Your task to perform on an android device: Go to notification settings Image 0: 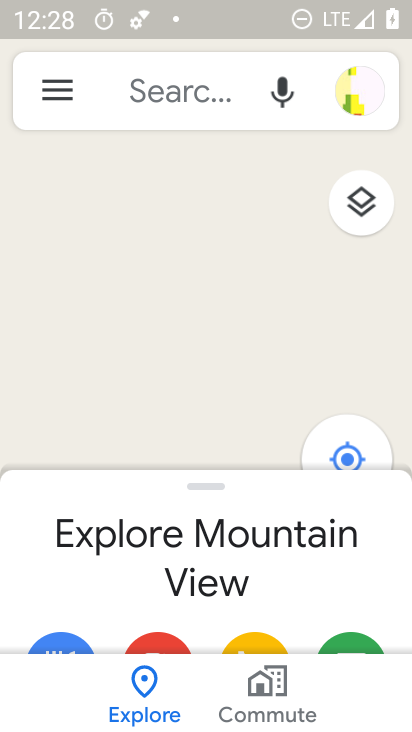
Step 0: press home button
Your task to perform on an android device: Go to notification settings Image 1: 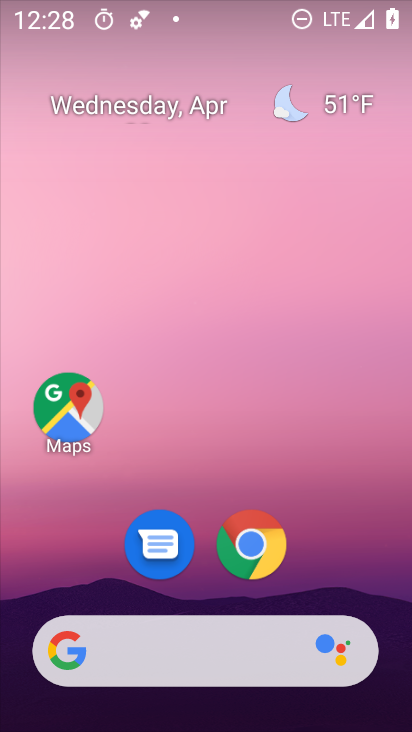
Step 1: drag from (351, 545) to (356, 203)
Your task to perform on an android device: Go to notification settings Image 2: 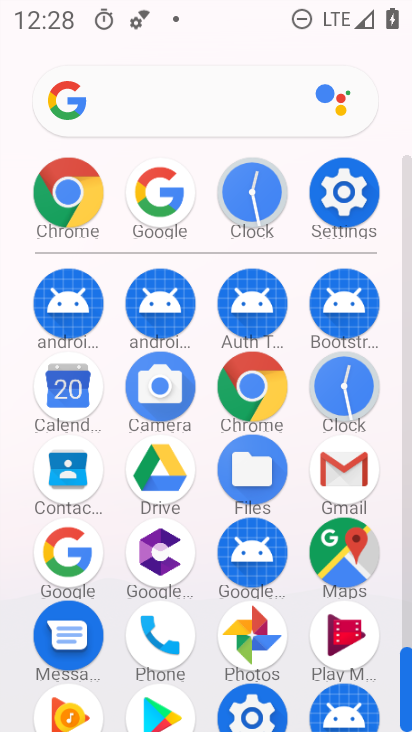
Step 2: click (357, 204)
Your task to perform on an android device: Go to notification settings Image 3: 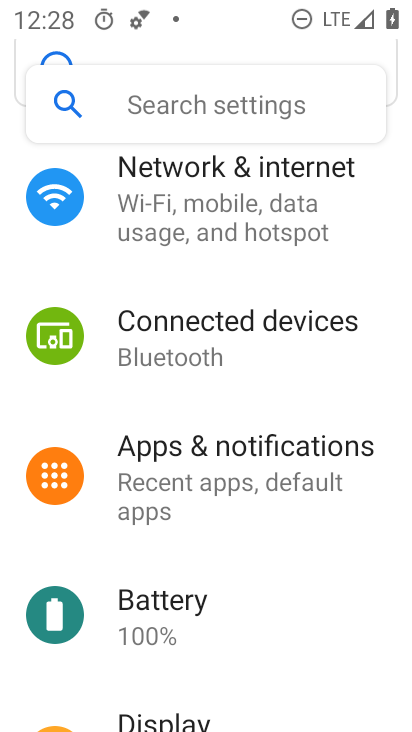
Step 3: drag from (363, 587) to (355, 419)
Your task to perform on an android device: Go to notification settings Image 4: 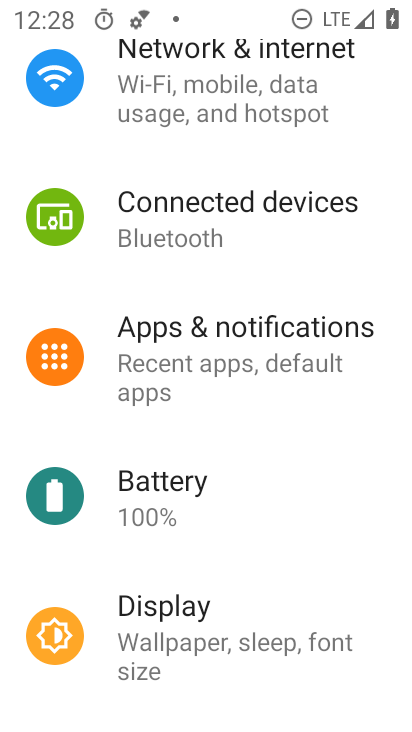
Step 4: drag from (353, 558) to (361, 440)
Your task to perform on an android device: Go to notification settings Image 5: 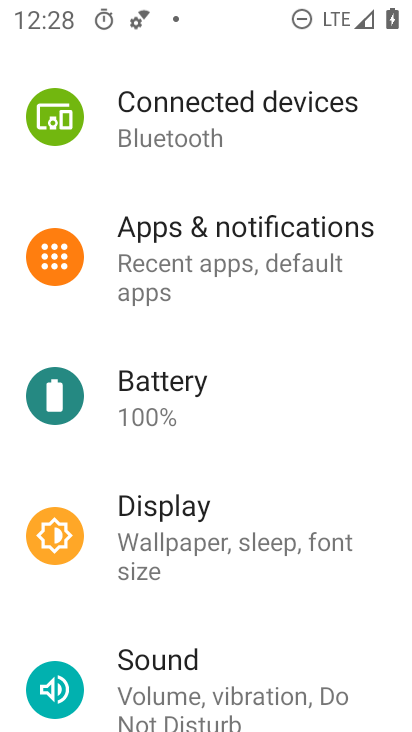
Step 5: drag from (353, 596) to (359, 438)
Your task to perform on an android device: Go to notification settings Image 6: 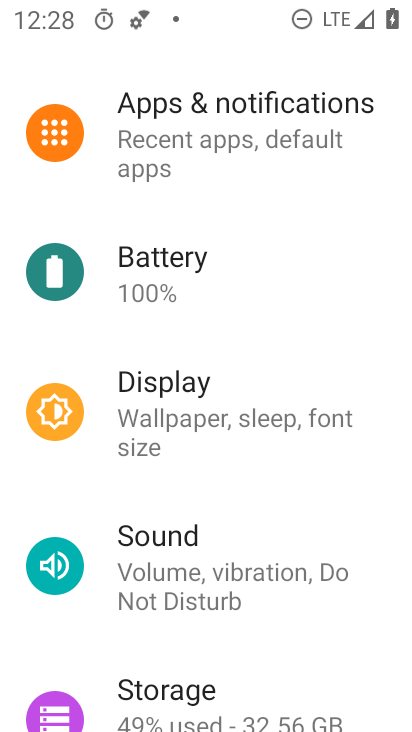
Step 6: drag from (365, 614) to (369, 430)
Your task to perform on an android device: Go to notification settings Image 7: 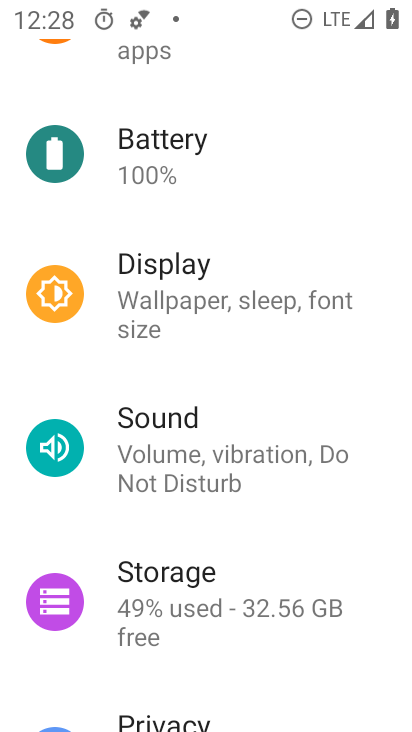
Step 7: drag from (369, 616) to (368, 461)
Your task to perform on an android device: Go to notification settings Image 8: 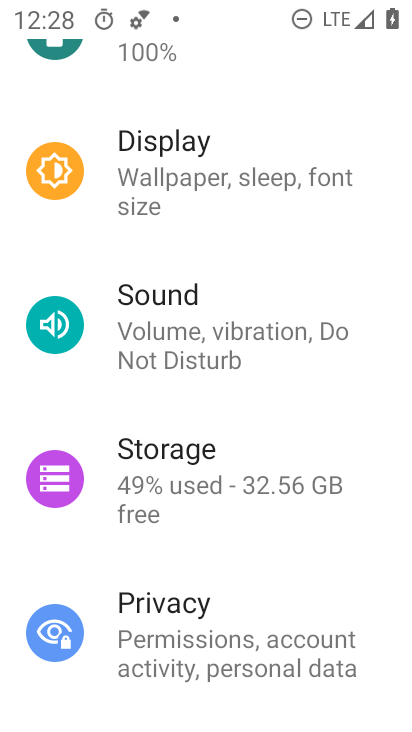
Step 8: drag from (370, 632) to (377, 454)
Your task to perform on an android device: Go to notification settings Image 9: 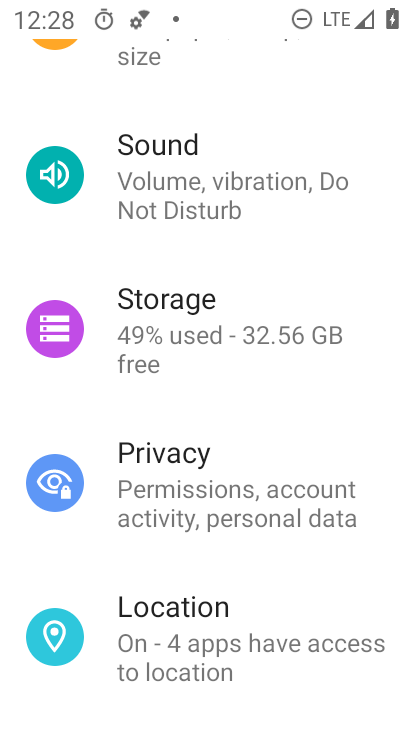
Step 9: drag from (368, 593) to (374, 429)
Your task to perform on an android device: Go to notification settings Image 10: 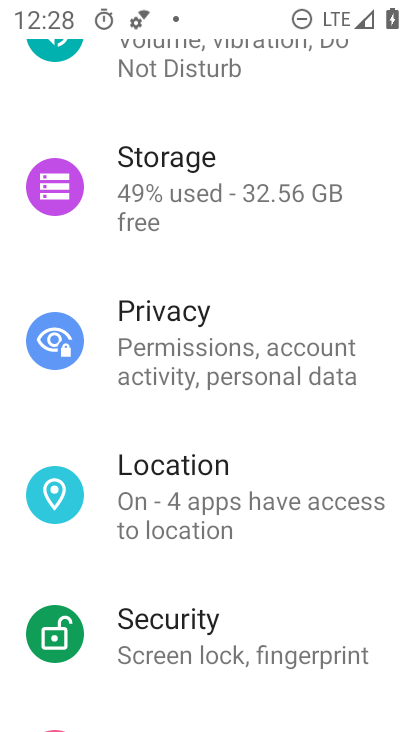
Step 10: drag from (386, 643) to (368, 458)
Your task to perform on an android device: Go to notification settings Image 11: 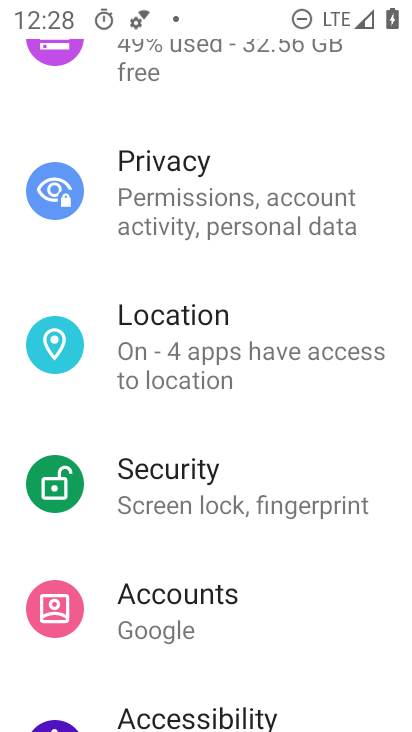
Step 11: drag from (363, 643) to (370, 448)
Your task to perform on an android device: Go to notification settings Image 12: 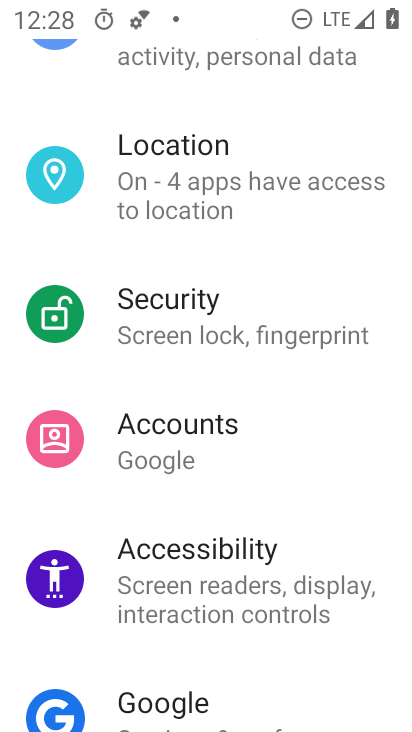
Step 12: drag from (362, 662) to (368, 446)
Your task to perform on an android device: Go to notification settings Image 13: 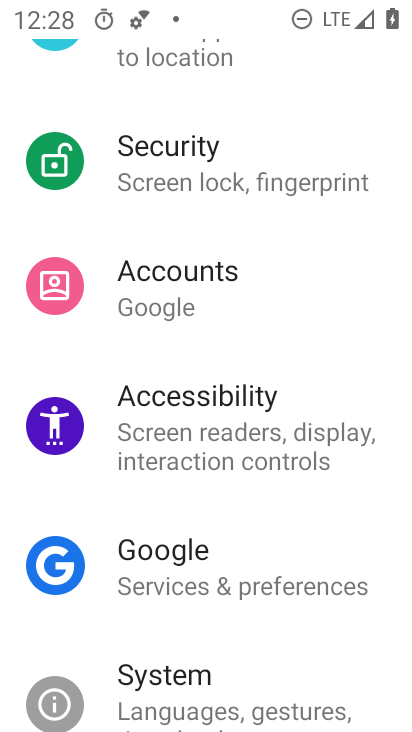
Step 13: drag from (382, 665) to (388, 481)
Your task to perform on an android device: Go to notification settings Image 14: 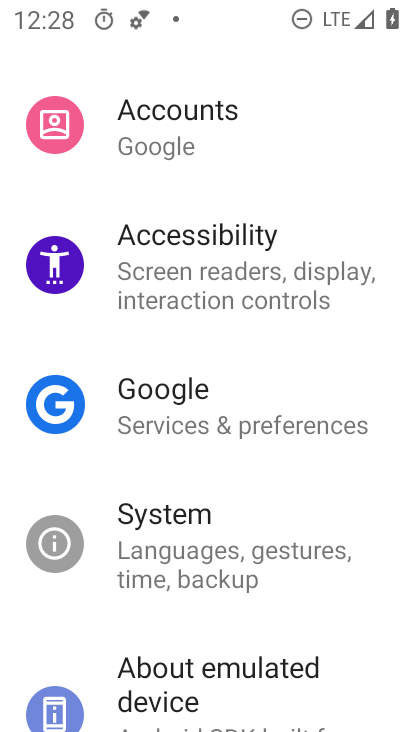
Step 14: drag from (371, 642) to (356, 461)
Your task to perform on an android device: Go to notification settings Image 15: 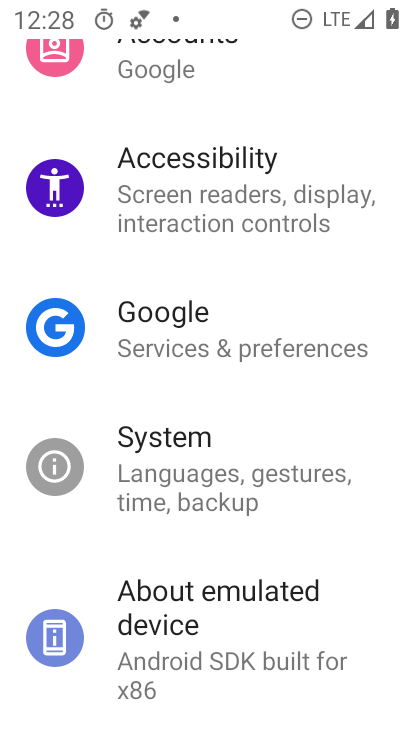
Step 15: drag from (362, 396) to (364, 541)
Your task to perform on an android device: Go to notification settings Image 16: 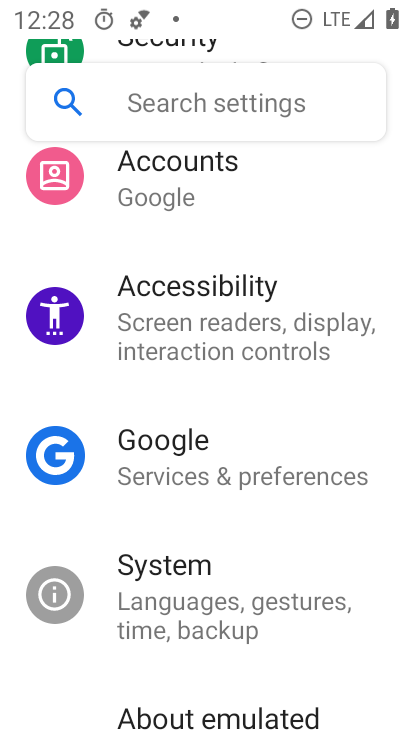
Step 16: drag from (373, 416) to (381, 573)
Your task to perform on an android device: Go to notification settings Image 17: 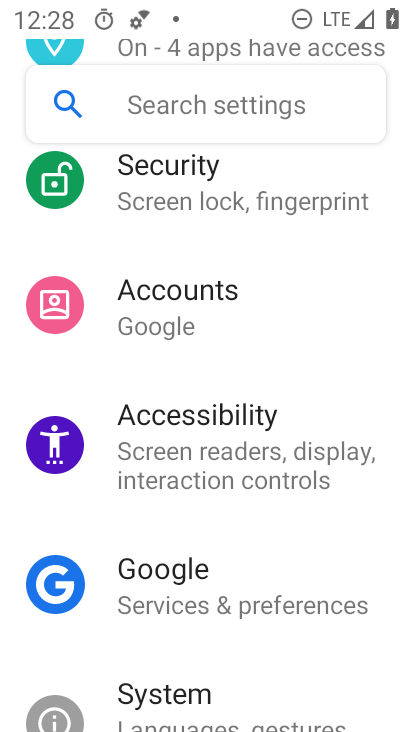
Step 17: drag from (374, 376) to (385, 523)
Your task to perform on an android device: Go to notification settings Image 18: 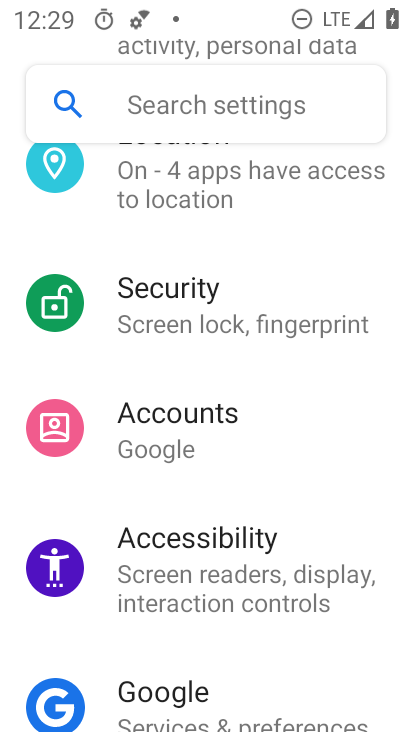
Step 18: drag from (379, 368) to (385, 503)
Your task to perform on an android device: Go to notification settings Image 19: 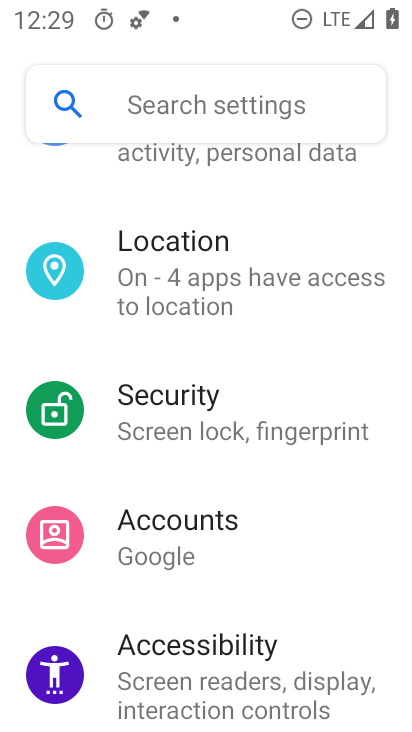
Step 19: drag from (382, 354) to (383, 505)
Your task to perform on an android device: Go to notification settings Image 20: 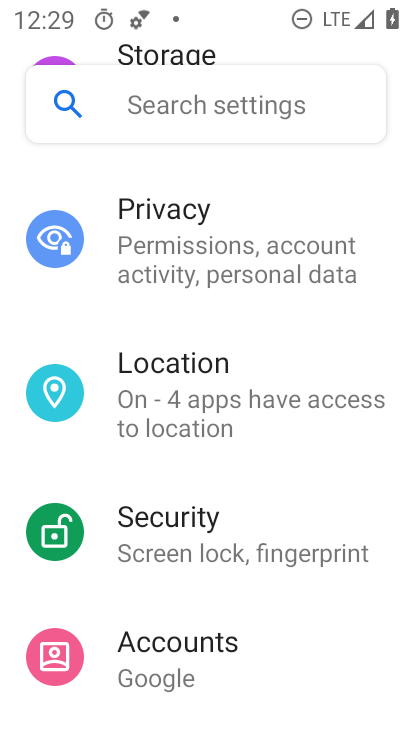
Step 20: drag from (380, 292) to (381, 490)
Your task to perform on an android device: Go to notification settings Image 21: 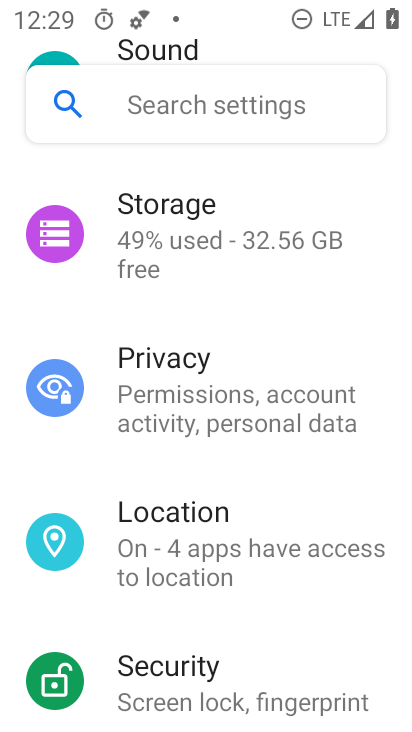
Step 21: drag from (368, 275) to (376, 437)
Your task to perform on an android device: Go to notification settings Image 22: 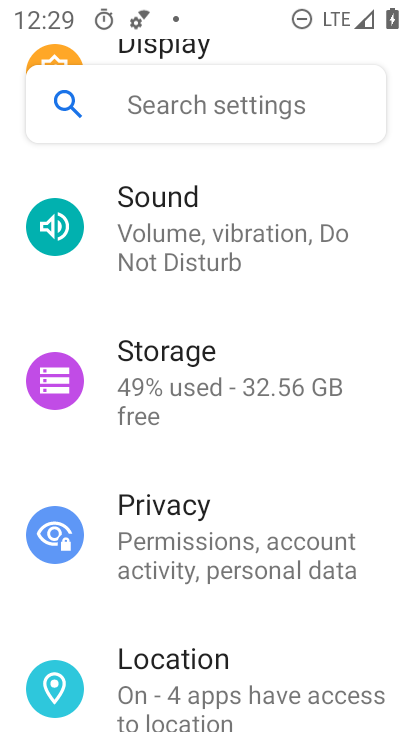
Step 22: drag from (366, 311) to (371, 450)
Your task to perform on an android device: Go to notification settings Image 23: 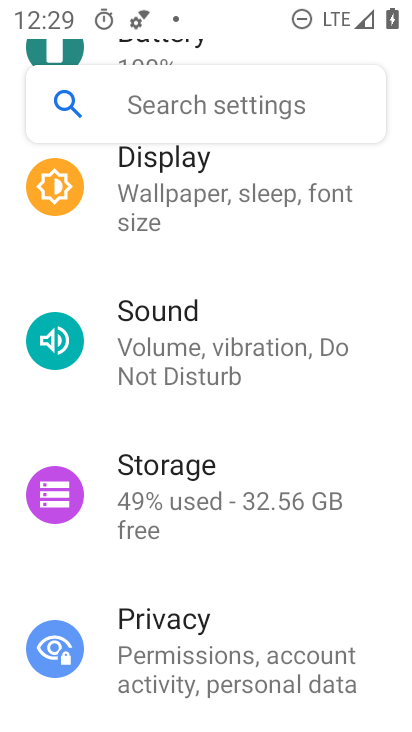
Step 23: drag from (370, 309) to (373, 467)
Your task to perform on an android device: Go to notification settings Image 24: 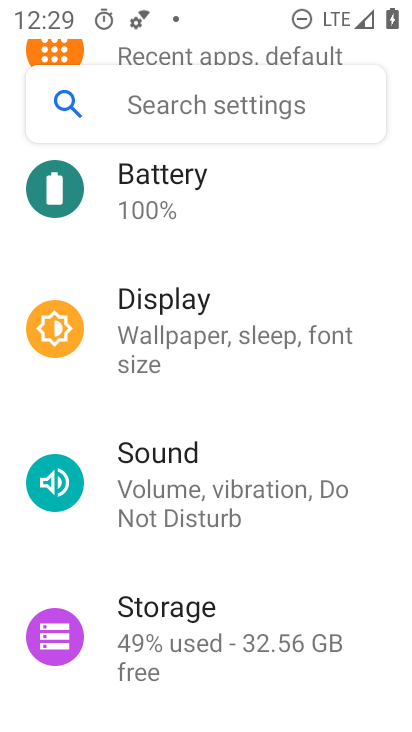
Step 24: drag from (374, 248) to (370, 445)
Your task to perform on an android device: Go to notification settings Image 25: 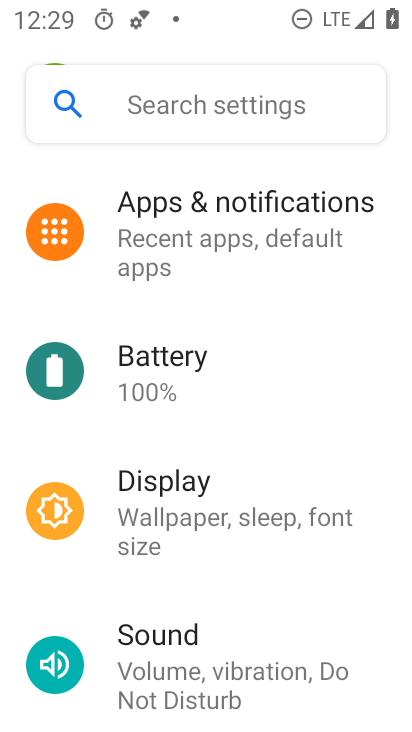
Step 25: drag from (365, 248) to (370, 397)
Your task to perform on an android device: Go to notification settings Image 26: 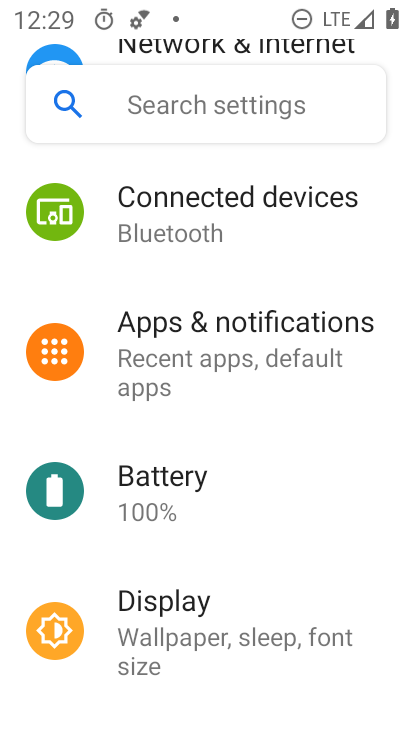
Step 26: click (279, 341)
Your task to perform on an android device: Go to notification settings Image 27: 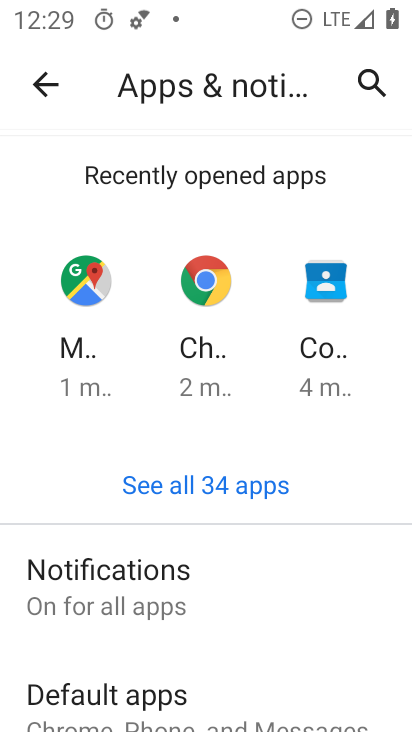
Step 27: click (143, 602)
Your task to perform on an android device: Go to notification settings Image 28: 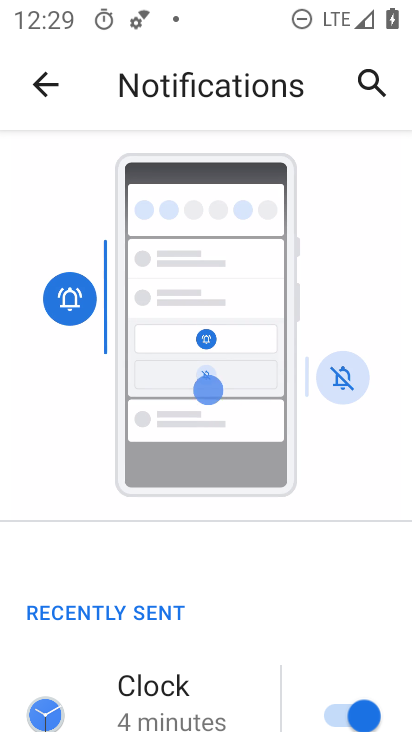
Step 28: task complete